Your task to perform on an android device: check battery use Image 0: 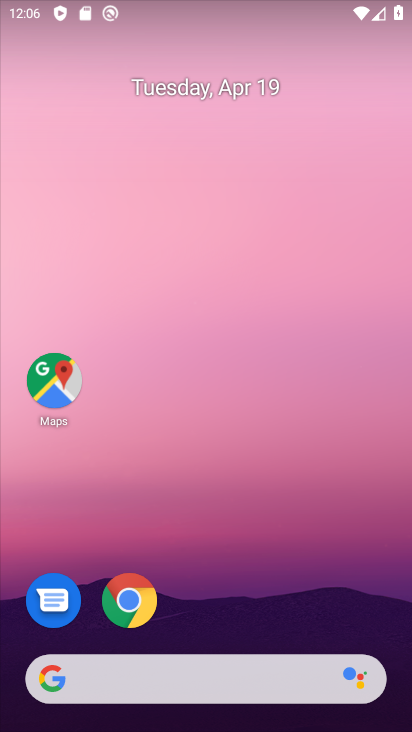
Step 0: drag from (316, 526) to (199, 114)
Your task to perform on an android device: check battery use Image 1: 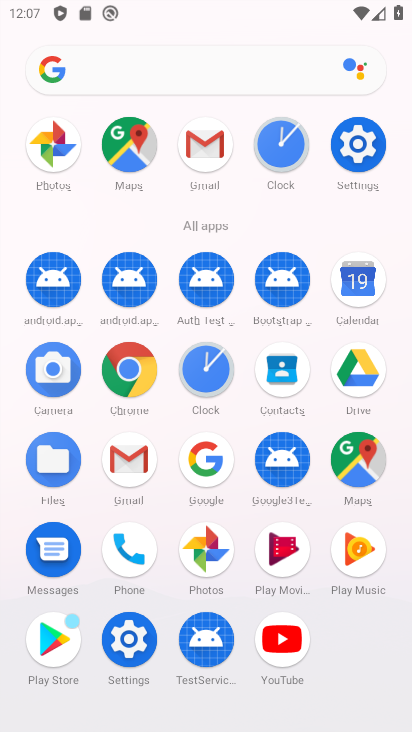
Step 1: click (365, 150)
Your task to perform on an android device: check battery use Image 2: 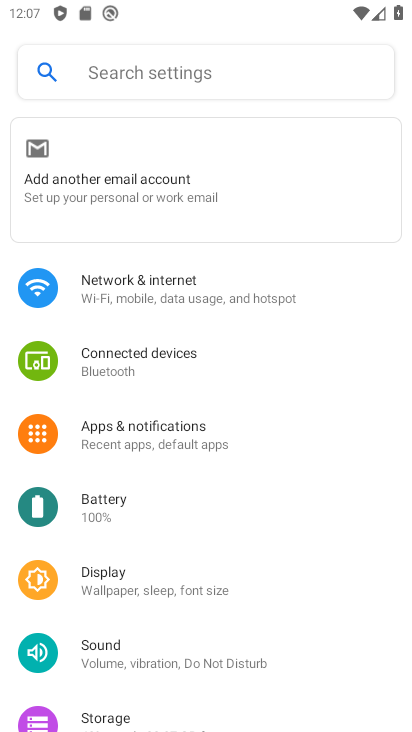
Step 2: click (236, 525)
Your task to perform on an android device: check battery use Image 3: 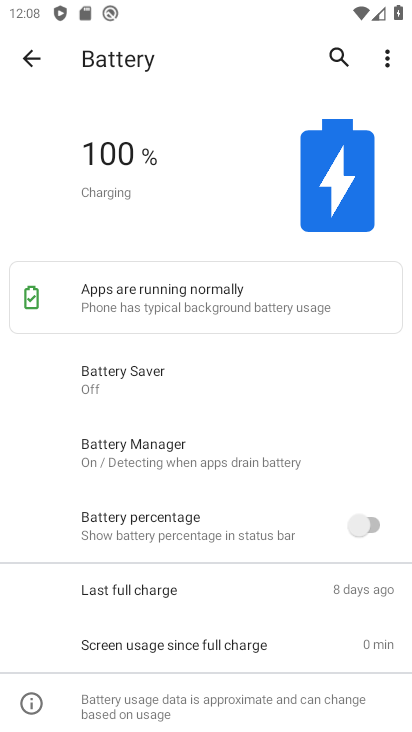
Step 3: task complete